Your task to perform on an android device: delete browsing data in the chrome app Image 0: 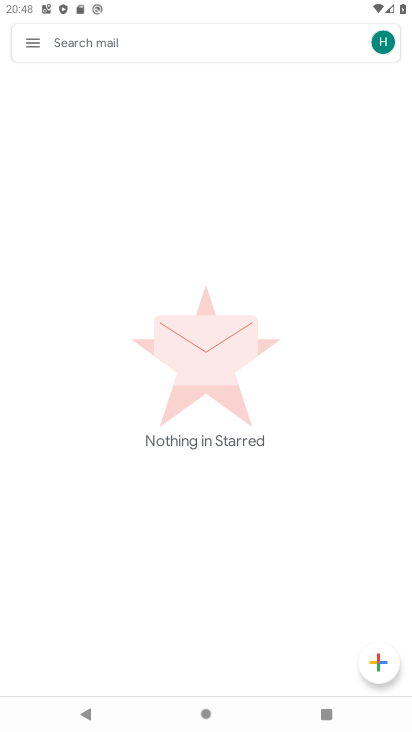
Step 0: press home button
Your task to perform on an android device: delete browsing data in the chrome app Image 1: 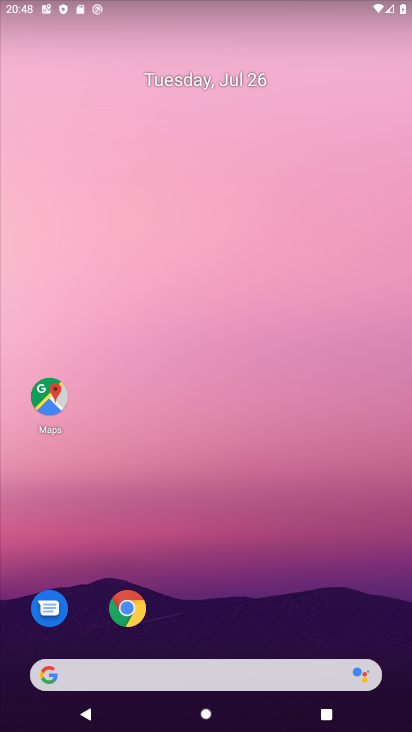
Step 1: click (136, 599)
Your task to perform on an android device: delete browsing data in the chrome app Image 2: 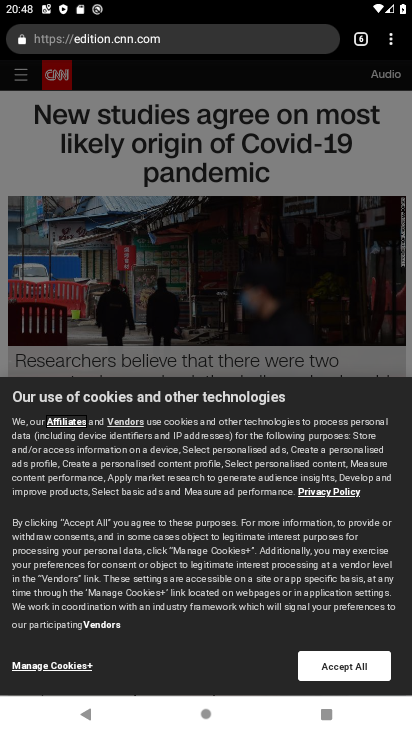
Step 2: click (394, 46)
Your task to perform on an android device: delete browsing data in the chrome app Image 3: 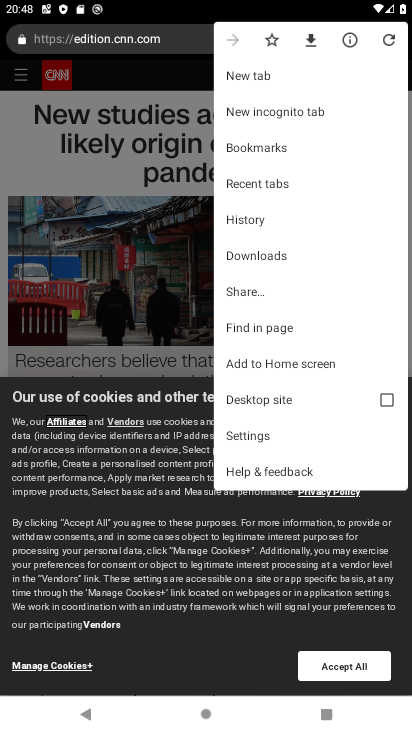
Step 3: click (260, 220)
Your task to perform on an android device: delete browsing data in the chrome app Image 4: 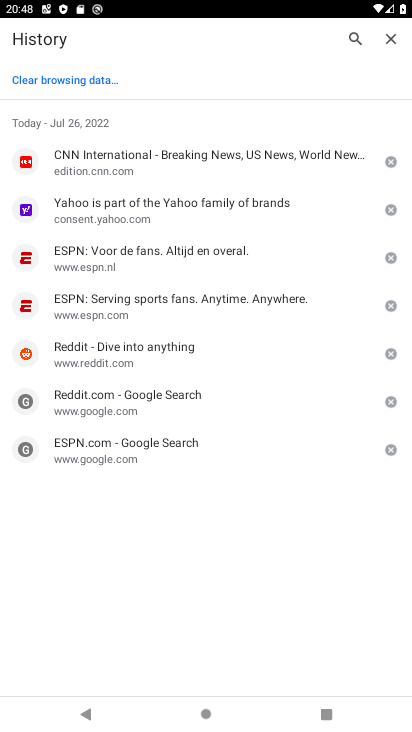
Step 4: click (61, 81)
Your task to perform on an android device: delete browsing data in the chrome app Image 5: 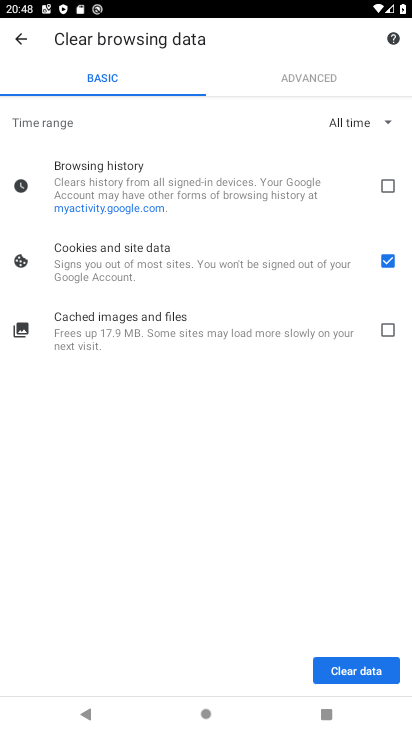
Step 5: click (385, 178)
Your task to perform on an android device: delete browsing data in the chrome app Image 6: 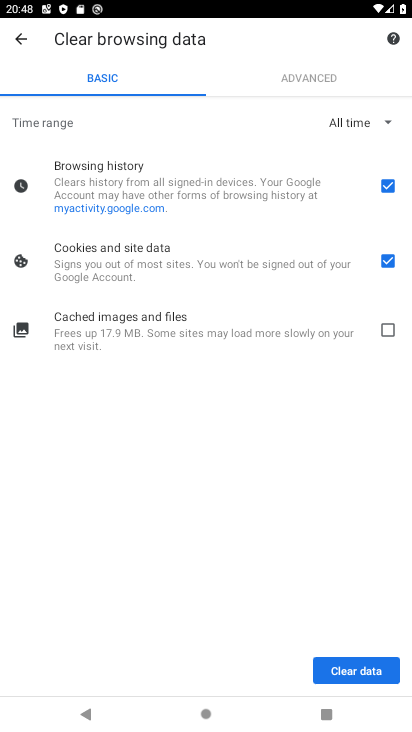
Step 6: click (393, 255)
Your task to perform on an android device: delete browsing data in the chrome app Image 7: 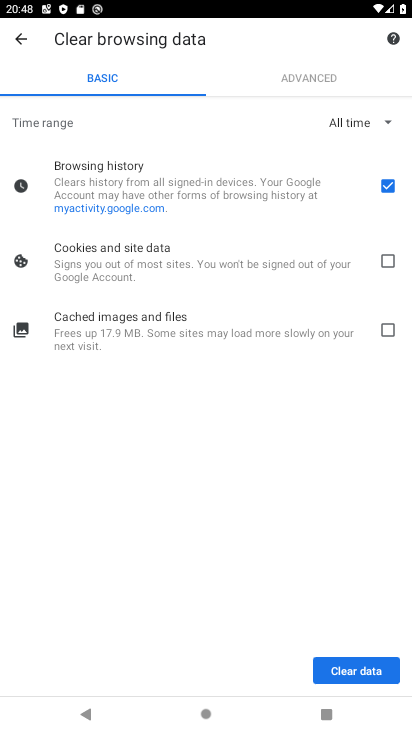
Step 7: click (386, 336)
Your task to perform on an android device: delete browsing data in the chrome app Image 8: 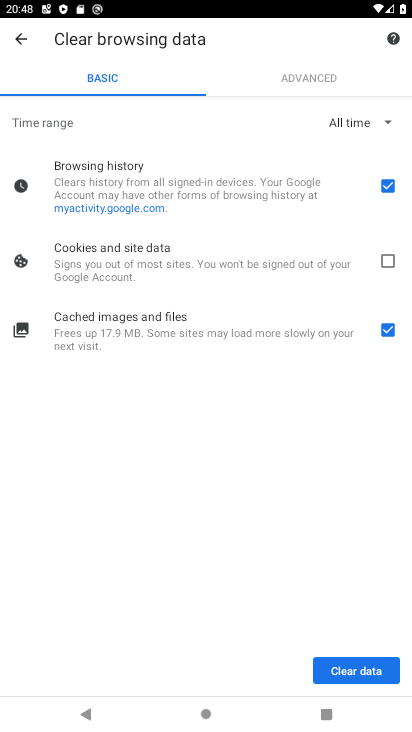
Step 8: click (387, 330)
Your task to perform on an android device: delete browsing data in the chrome app Image 9: 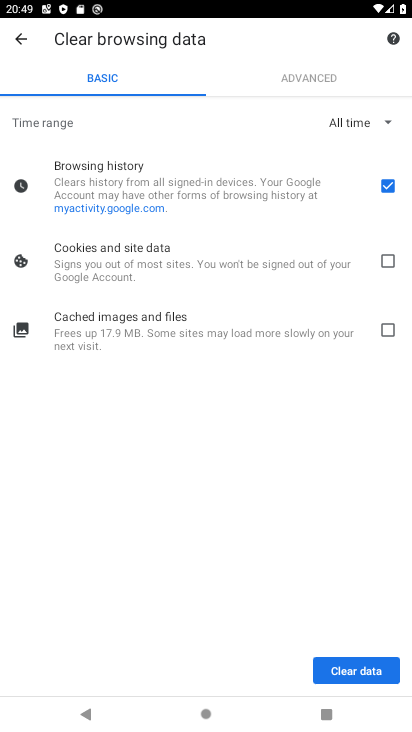
Step 9: click (377, 670)
Your task to perform on an android device: delete browsing data in the chrome app Image 10: 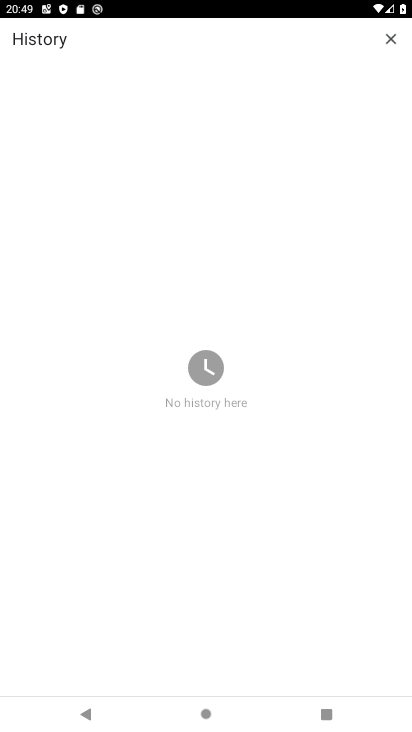
Step 10: task complete